Your task to perform on an android device: Open settings on Google Maps Image 0: 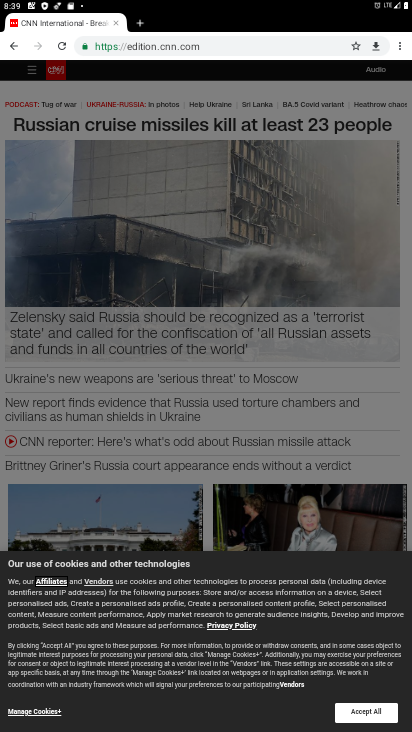
Step 0: press home button
Your task to perform on an android device: Open settings on Google Maps Image 1: 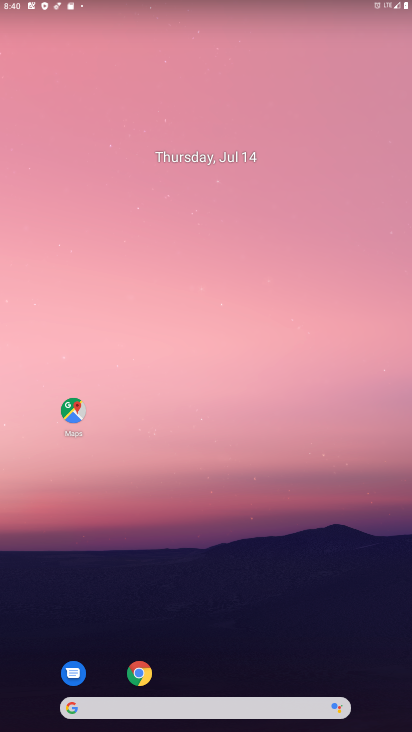
Step 1: click (73, 411)
Your task to perform on an android device: Open settings on Google Maps Image 2: 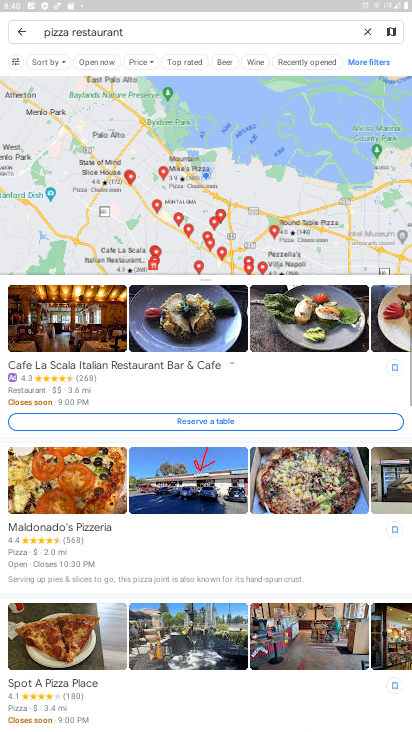
Step 2: press back button
Your task to perform on an android device: Open settings on Google Maps Image 3: 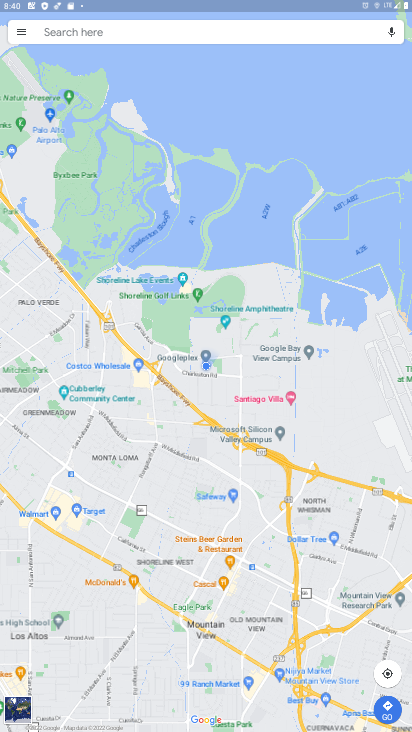
Step 3: click (22, 31)
Your task to perform on an android device: Open settings on Google Maps Image 4: 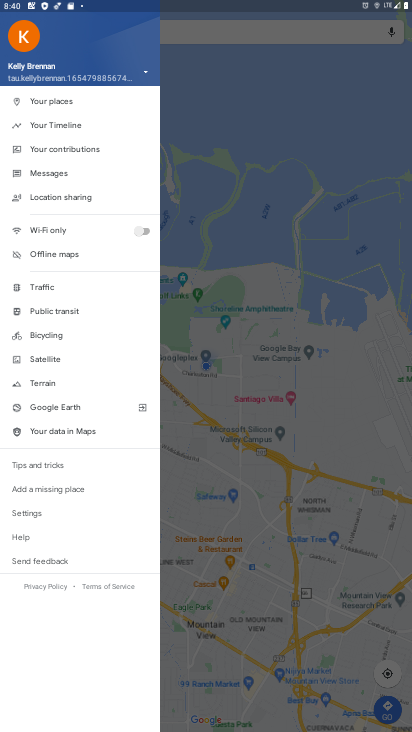
Step 4: click (32, 513)
Your task to perform on an android device: Open settings on Google Maps Image 5: 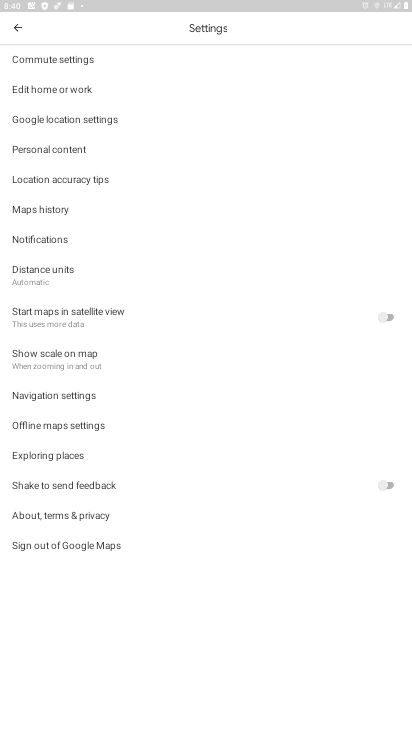
Step 5: task complete